Your task to perform on an android device: turn on translation in the chrome app Image 0: 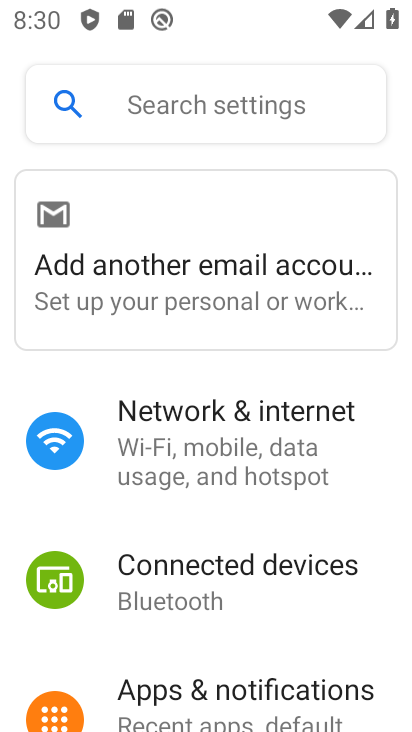
Step 0: press home button
Your task to perform on an android device: turn on translation in the chrome app Image 1: 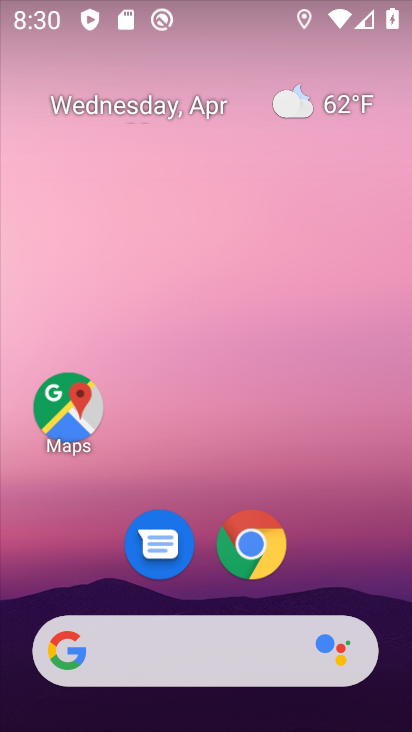
Step 1: click (261, 555)
Your task to perform on an android device: turn on translation in the chrome app Image 2: 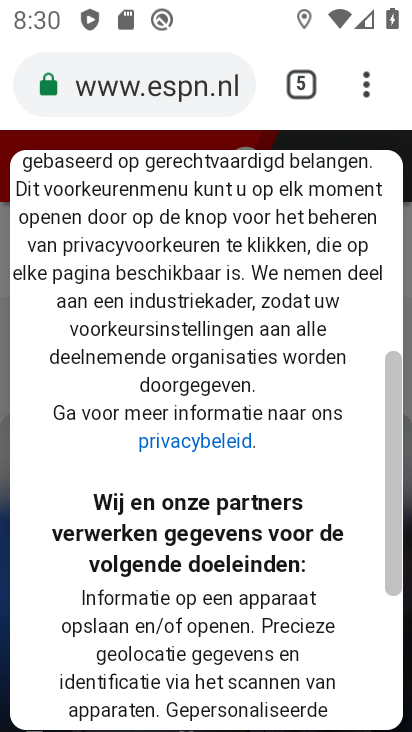
Step 2: drag from (364, 81) to (136, 594)
Your task to perform on an android device: turn on translation in the chrome app Image 3: 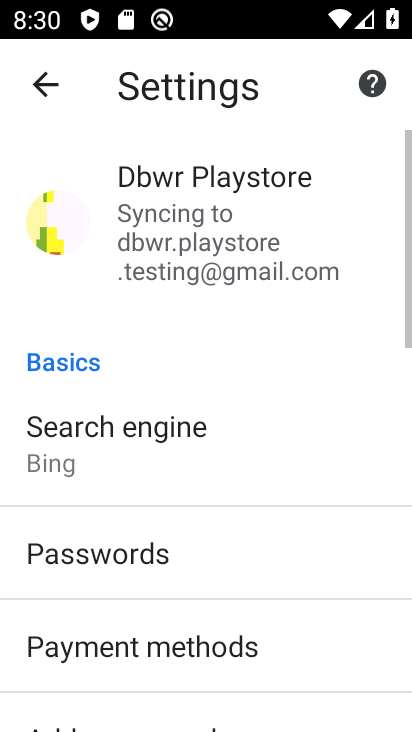
Step 3: drag from (332, 676) to (244, 294)
Your task to perform on an android device: turn on translation in the chrome app Image 4: 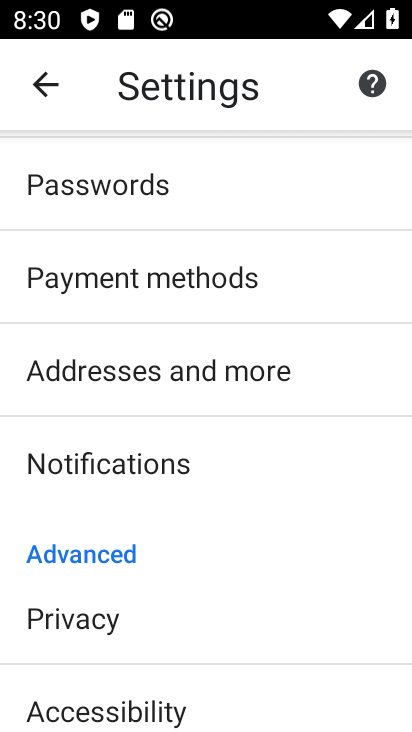
Step 4: drag from (244, 673) to (287, 203)
Your task to perform on an android device: turn on translation in the chrome app Image 5: 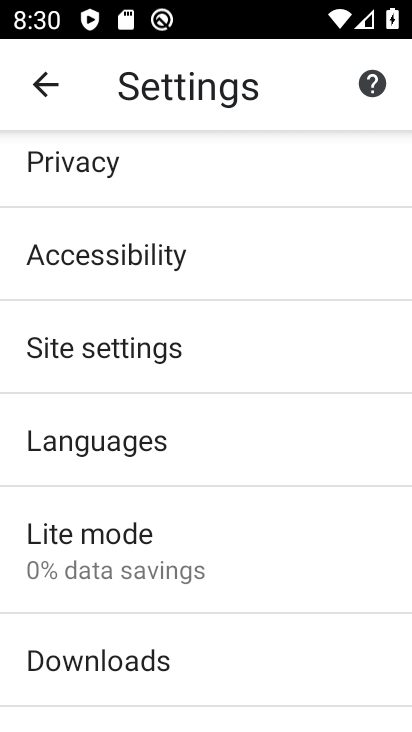
Step 5: click (87, 444)
Your task to perform on an android device: turn on translation in the chrome app Image 6: 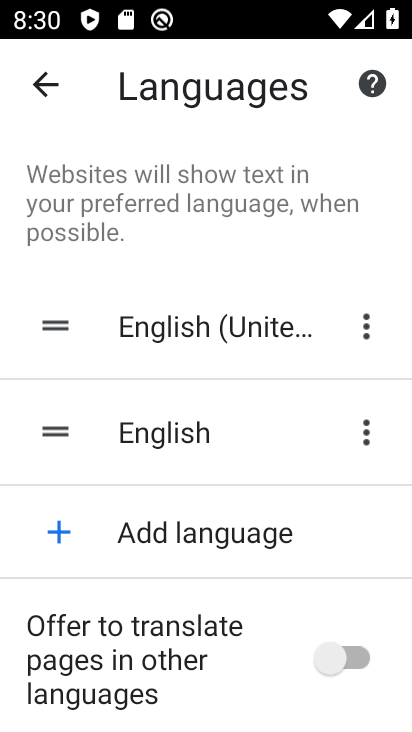
Step 6: click (358, 669)
Your task to perform on an android device: turn on translation in the chrome app Image 7: 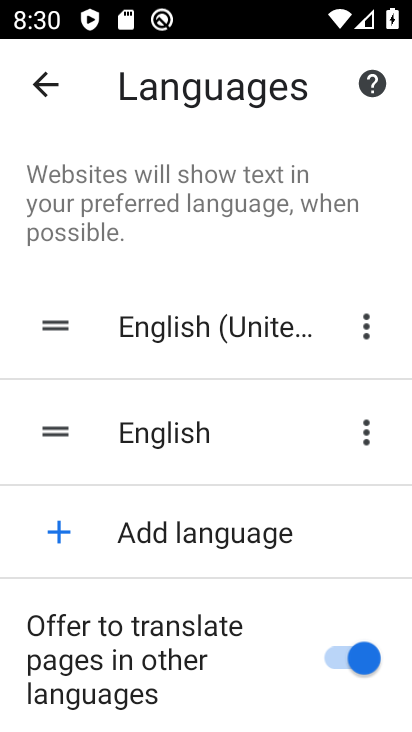
Step 7: task complete